Your task to perform on an android device: Open CNN.com Image 0: 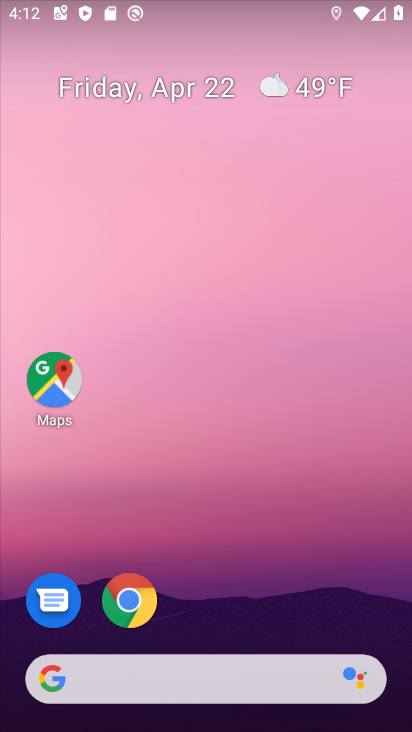
Step 0: click (134, 601)
Your task to perform on an android device: Open CNN.com Image 1: 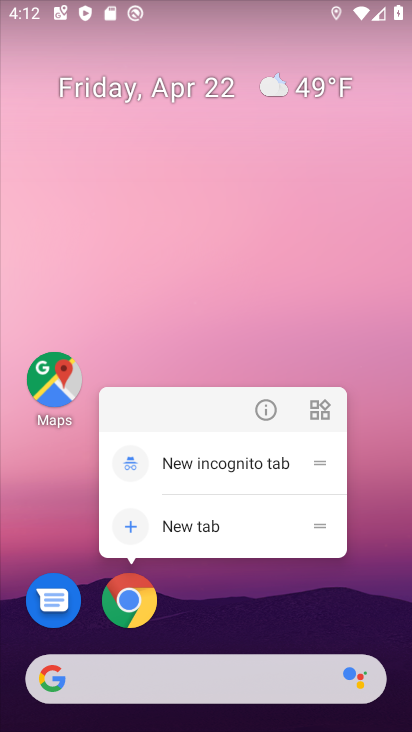
Step 1: click (130, 602)
Your task to perform on an android device: Open CNN.com Image 2: 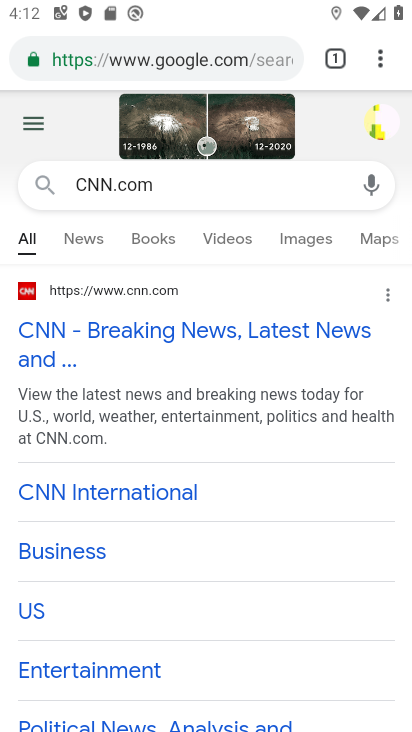
Step 2: click (285, 57)
Your task to perform on an android device: Open CNN.com Image 3: 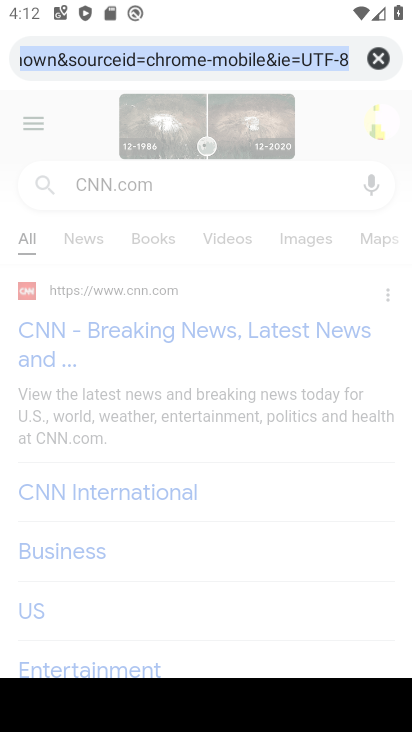
Step 3: click (373, 58)
Your task to perform on an android device: Open CNN.com Image 4: 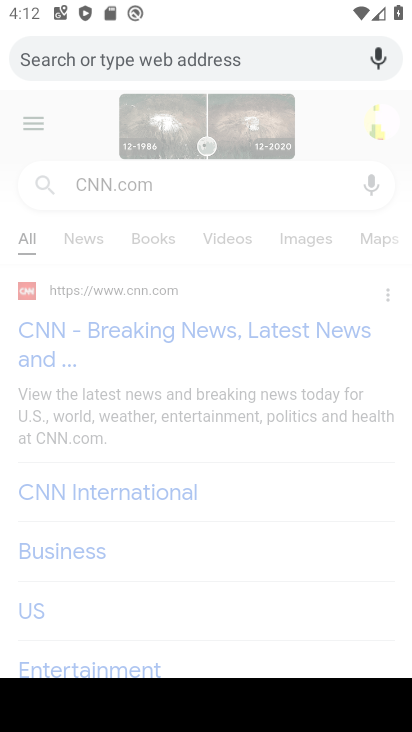
Step 4: click (302, 64)
Your task to perform on an android device: Open CNN.com Image 5: 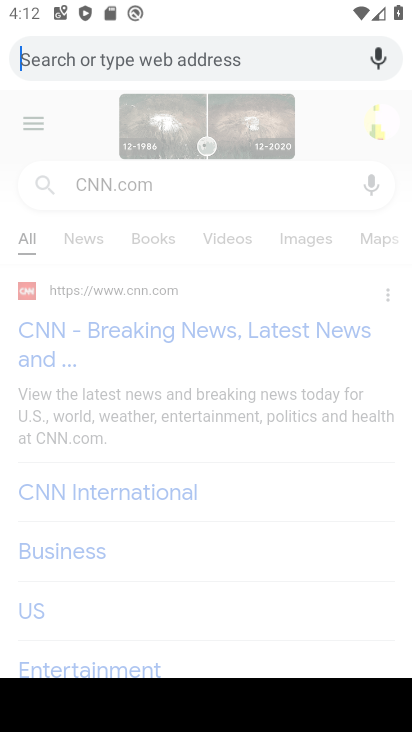
Step 5: type "CNN.com"
Your task to perform on an android device: Open CNN.com Image 6: 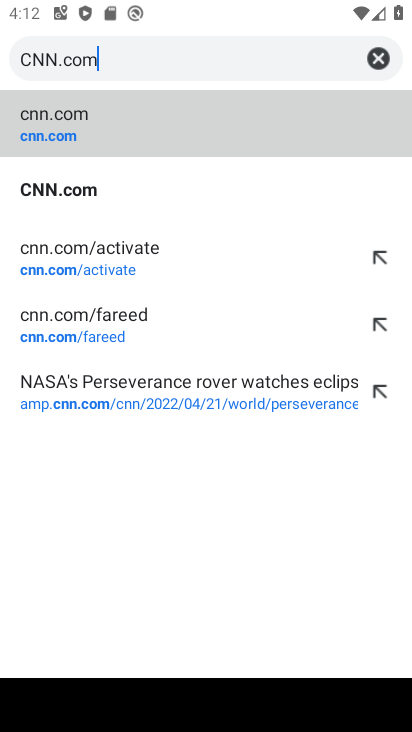
Step 6: click (78, 194)
Your task to perform on an android device: Open CNN.com Image 7: 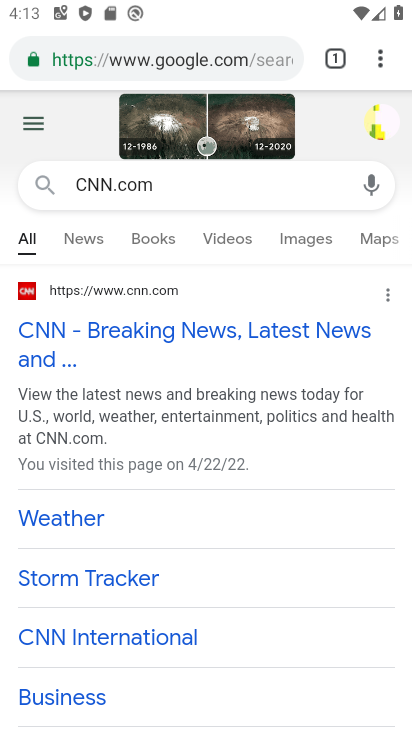
Step 7: task complete